Your task to perform on an android device: Open network settings Image 0: 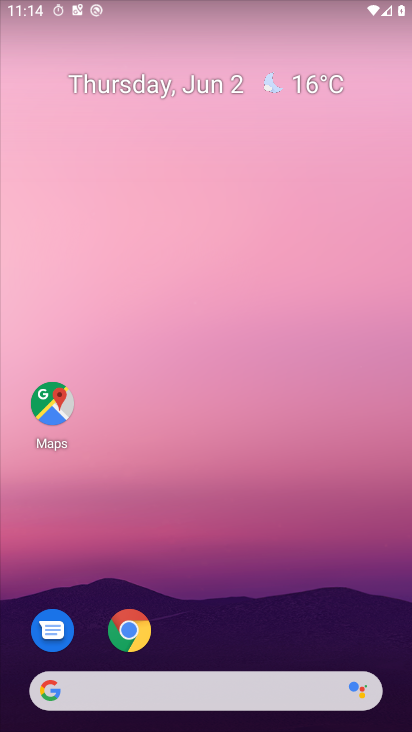
Step 0: drag from (233, 635) to (256, 251)
Your task to perform on an android device: Open network settings Image 1: 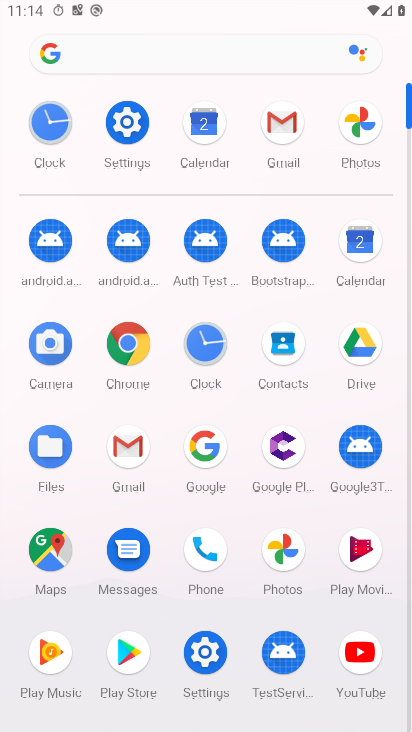
Step 1: click (138, 145)
Your task to perform on an android device: Open network settings Image 2: 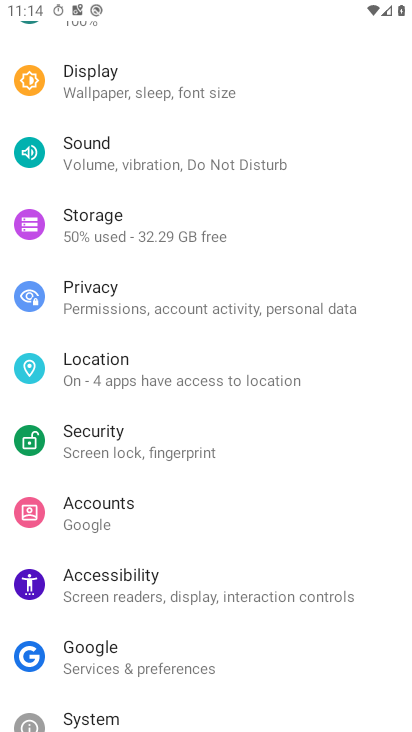
Step 2: drag from (145, 133) to (148, 423)
Your task to perform on an android device: Open network settings Image 3: 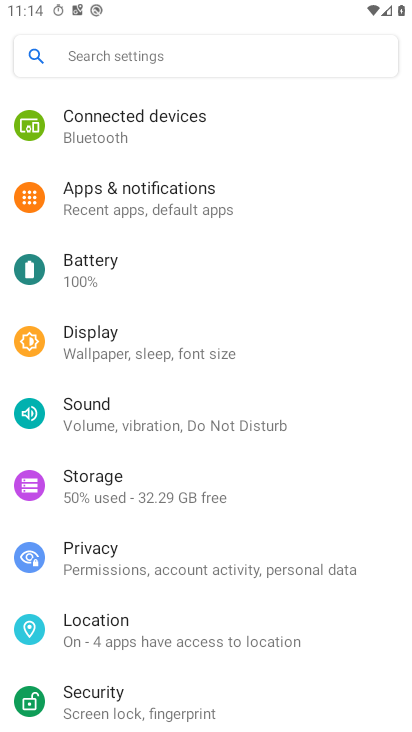
Step 3: drag from (151, 151) to (137, 461)
Your task to perform on an android device: Open network settings Image 4: 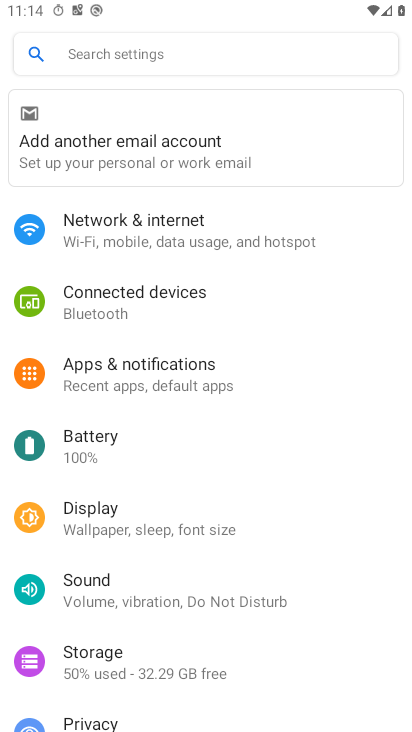
Step 4: click (153, 233)
Your task to perform on an android device: Open network settings Image 5: 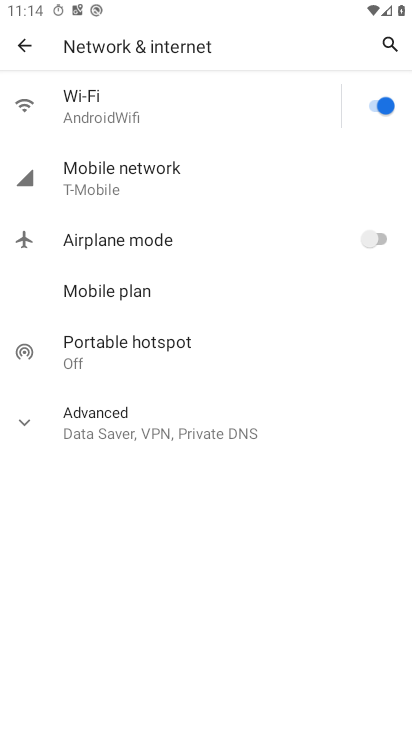
Step 5: task complete